Your task to perform on an android device: Find coffee shops on Maps Image 0: 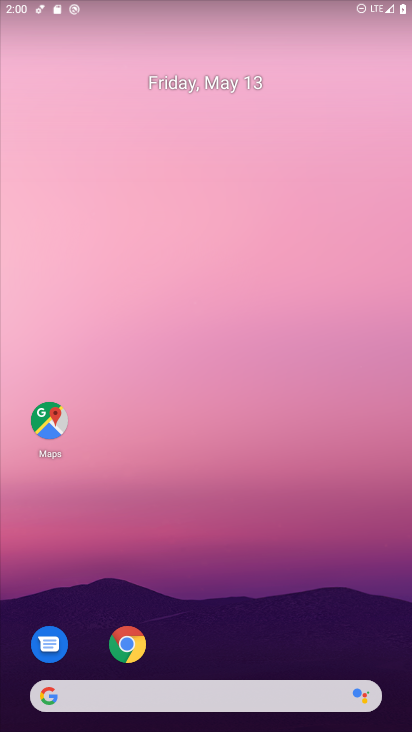
Step 0: drag from (321, 656) to (247, 42)
Your task to perform on an android device: Find coffee shops on Maps Image 1: 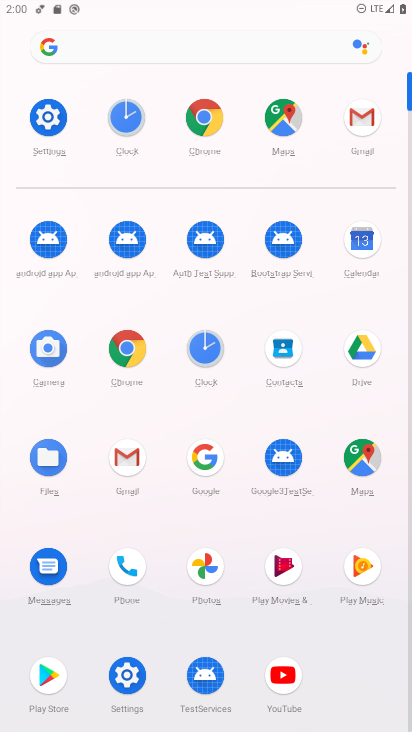
Step 1: click (363, 463)
Your task to perform on an android device: Find coffee shops on Maps Image 2: 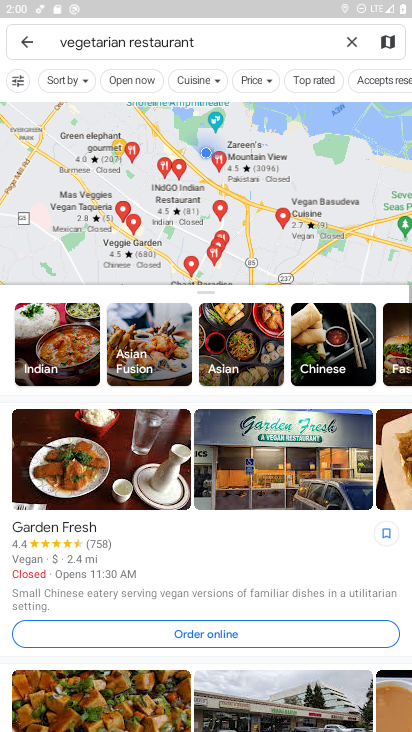
Step 2: click (354, 34)
Your task to perform on an android device: Find coffee shops on Maps Image 3: 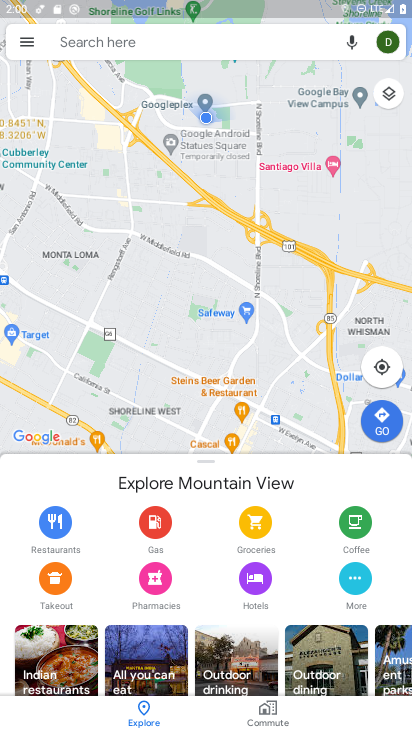
Step 3: click (137, 36)
Your task to perform on an android device: Find coffee shops on Maps Image 4: 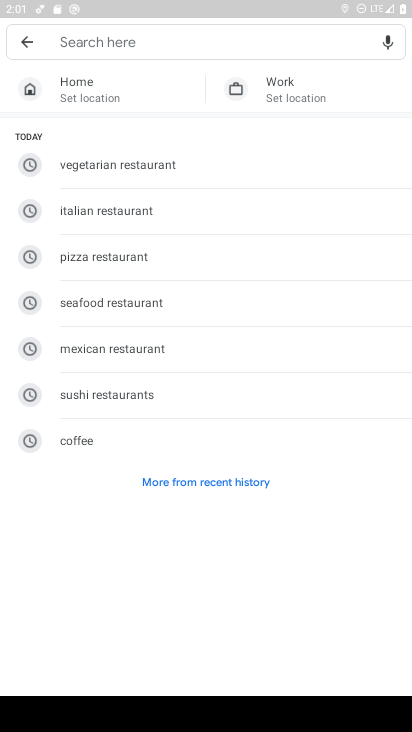
Step 4: click (121, 435)
Your task to perform on an android device: Find coffee shops on Maps Image 5: 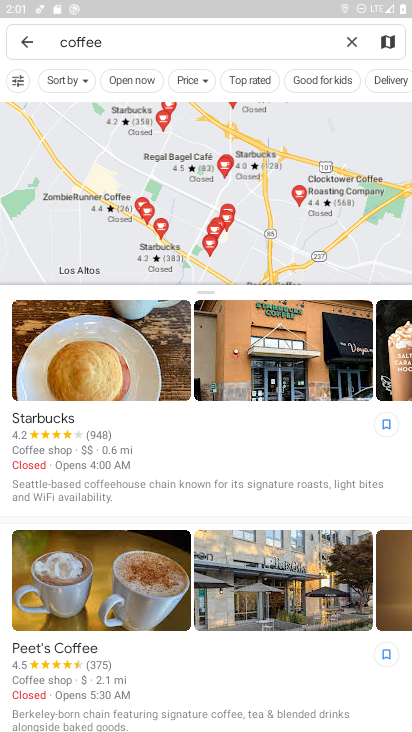
Step 5: task complete